Your task to perform on an android device: Set the phone to "Do not disturb". Image 0: 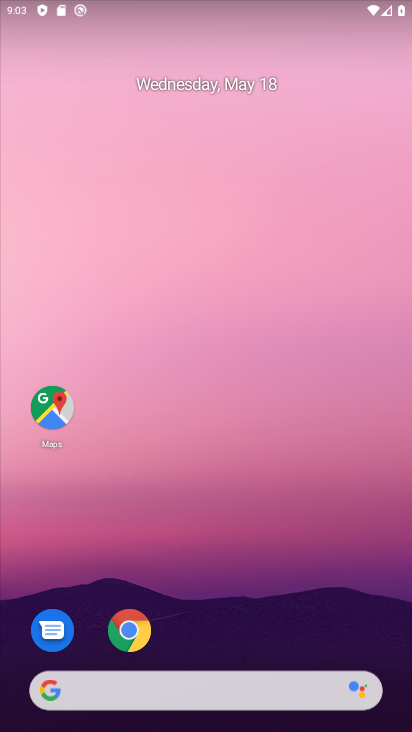
Step 0: drag from (228, 8) to (257, 645)
Your task to perform on an android device: Set the phone to "Do not disturb". Image 1: 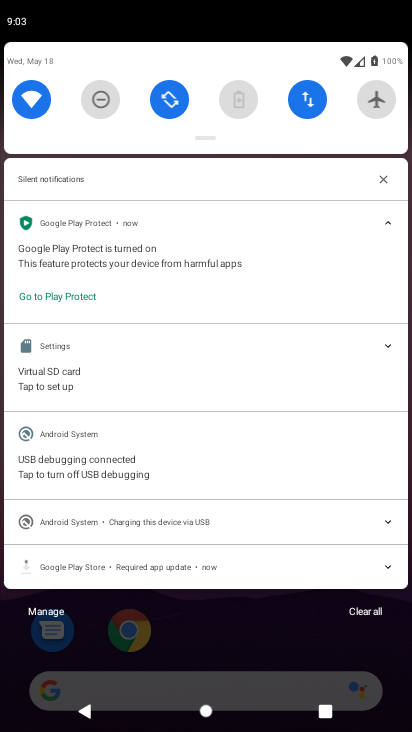
Step 1: click (102, 107)
Your task to perform on an android device: Set the phone to "Do not disturb". Image 2: 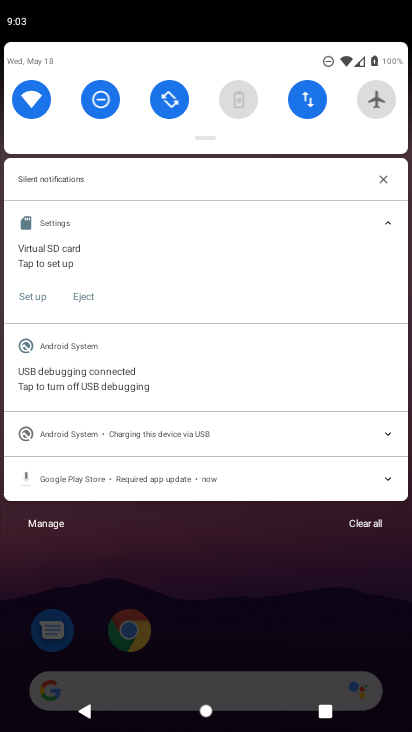
Step 2: task complete